Your task to perform on an android device: Open Google Chrome and click the shortcut for Amazon.com Image 0: 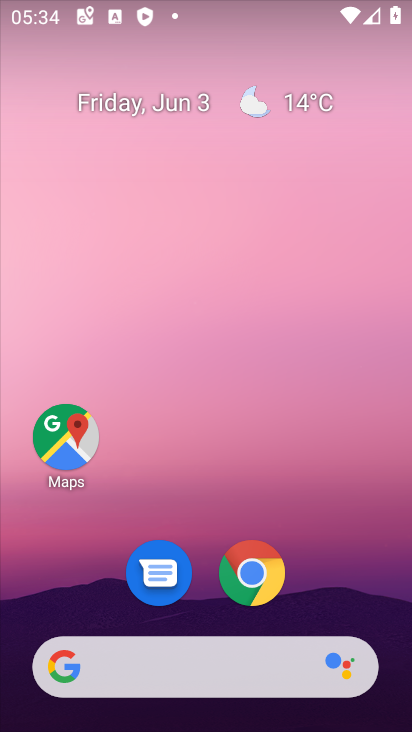
Step 0: drag from (304, 647) to (273, 37)
Your task to perform on an android device: Open Google Chrome and click the shortcut for Amazon.com Image 1: 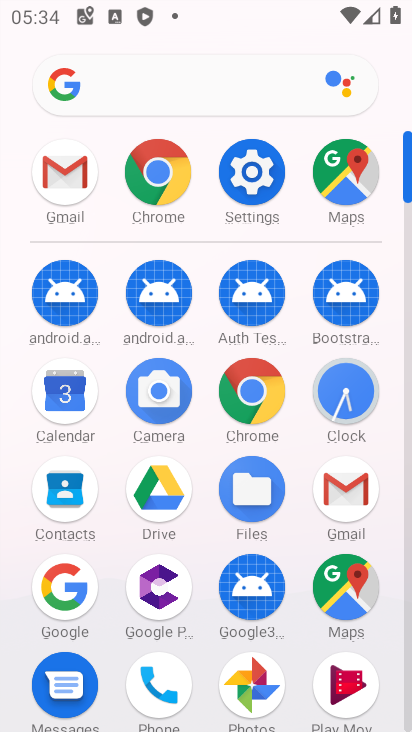
Step 1: click (270, 385)
Your task to perform on an android device: Open Google Chrome and click the shortcut for Amazon.com Image 2: 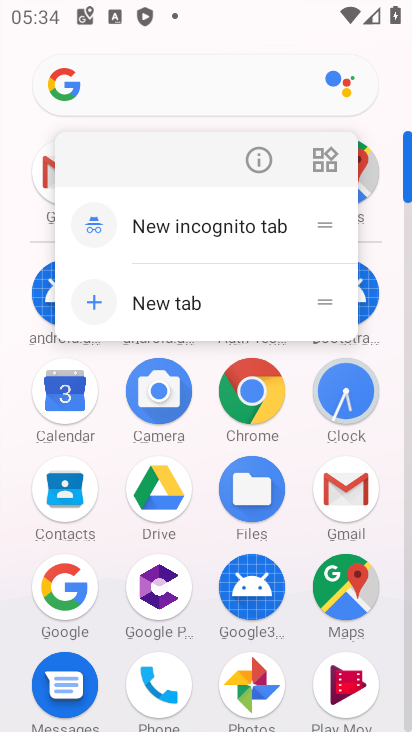
Step 2: click (258, 385)
Your task to perform on an android device: Open Google Chrome and click the shortcut for Amazon.com Image 3: 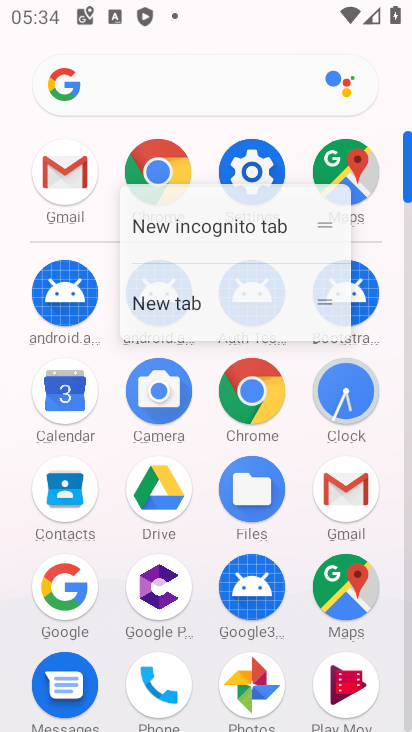
Step 3: click (258, 385)
Your task to perform on an android device: Open Google Chrome and click the shortcut for Amazon.com Image 4: 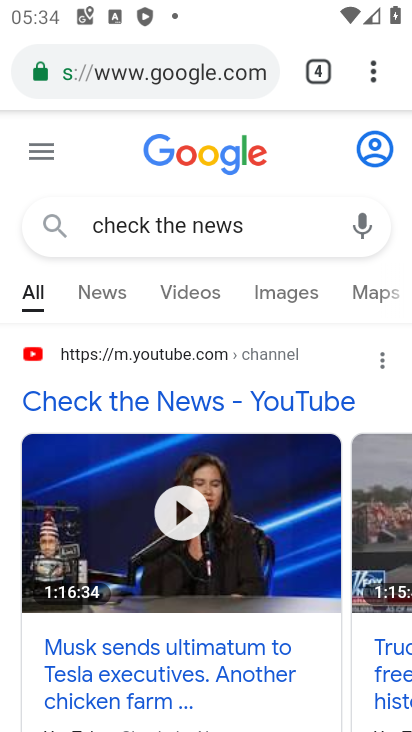
Step 4: drag from (366, 78) to (331, 144)
Your task to perform on an android device: Open Google Chrome and click the shortcut for Amazon.com Image 5: 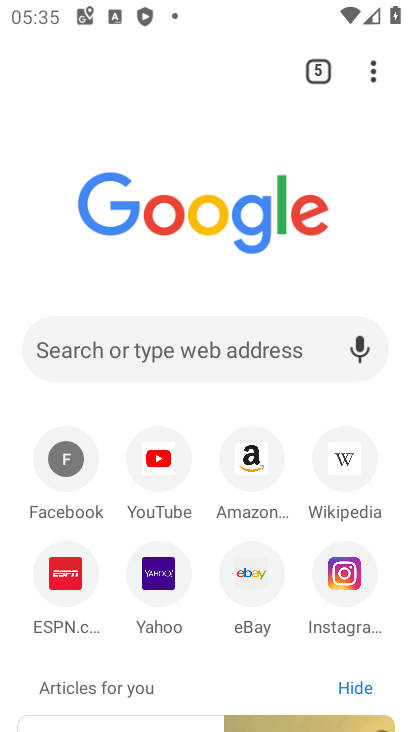
Step 5: click (242, 459)
Your task to perform on an android device: Open Google Chrome and click the shortcut for Amazon.com Image 6: 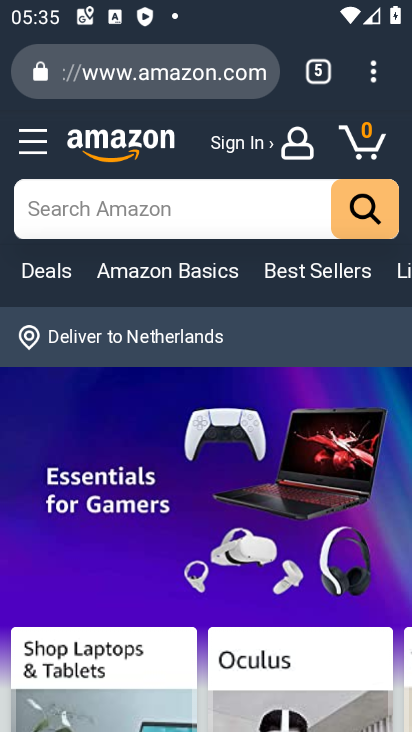
Step 6: drag from (377, 65) to (236, 444)
Your task to perform on an android device: Open Google Chrome and click the shortcut for Amazon.com Image 7: 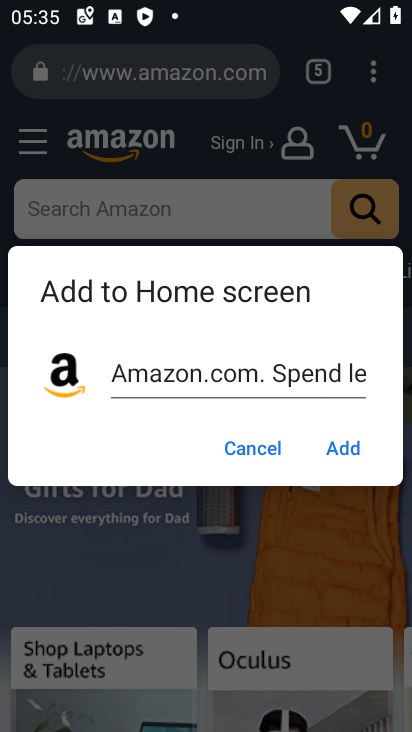
Step 7: click (347, 450)
Your task to perform on an android device: Open Google Chrome and click the shortcut for Amazon.com Image 8: 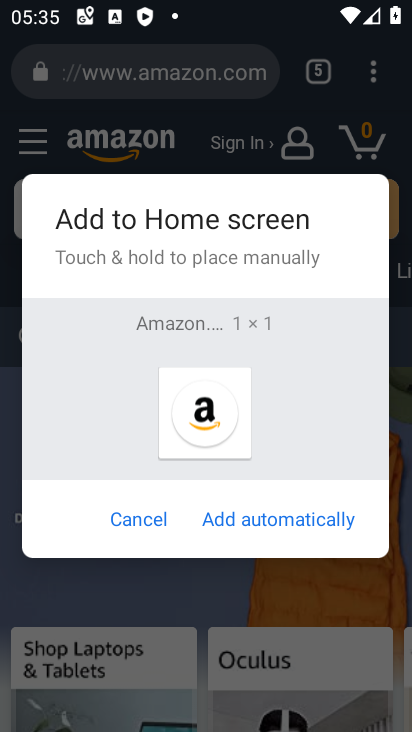
Step 8: click (249, 515)
Your task to perform on an android device: Open Google Chrome and click the shortcut for Amazon.com Image 9: 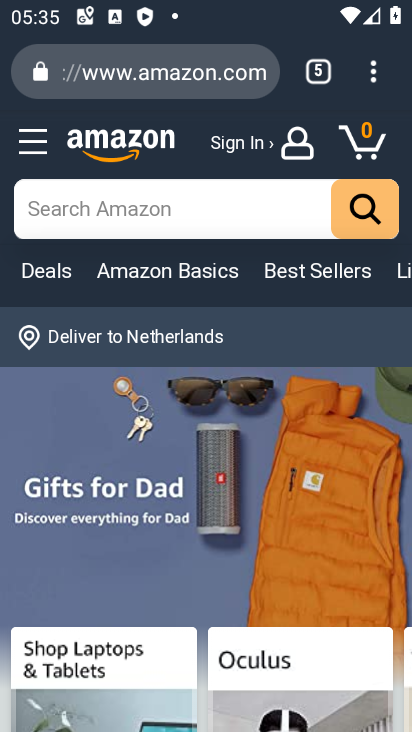
Step 9: task complete